Your task to perform on an android device: Search for Italian restaurants on Maps Image 0: 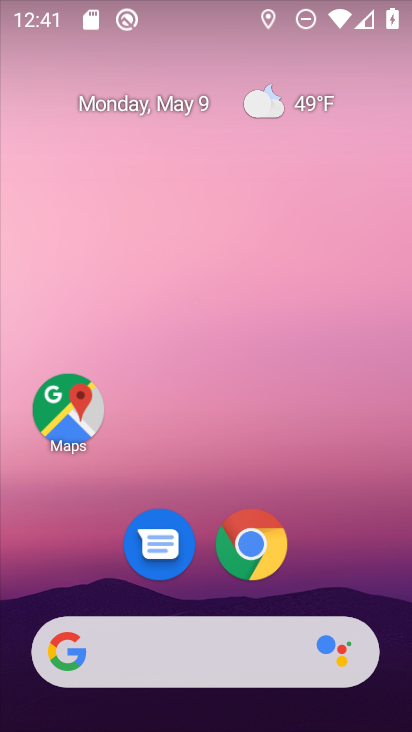
Step 0: drag from (358, 533) to (408, 86)
Your task to perform on an android device: Search for Italian restaurants on Maps Image 1: 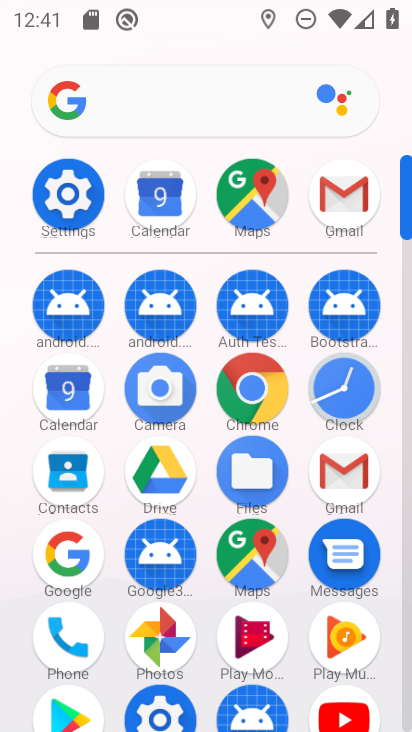
Step 1: click (265, 208)
Your task to perform on an android device: Search for Italian restaurants on Maps Image 2: 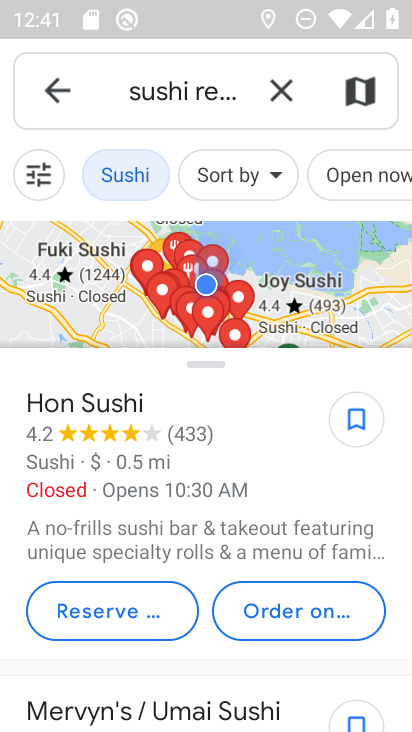
Step 2: click (281, 88)
Your task to perform on an android device: Search for Italian restaurants on Maps Image 3: 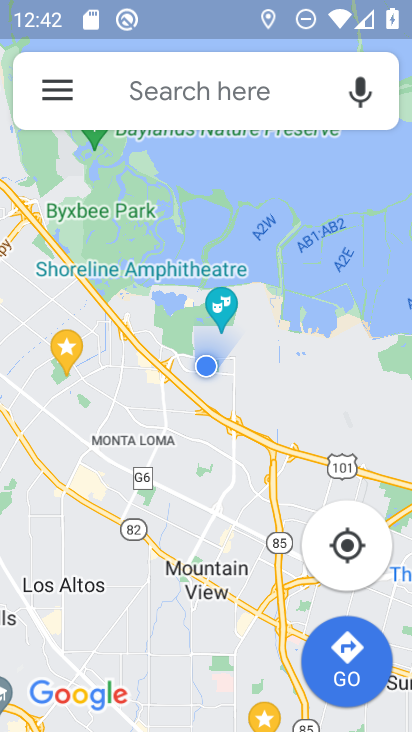
Step 3: type "italian returents"
Your task to perform on an android device: Search for Italian restaurants on Maps Image 4: 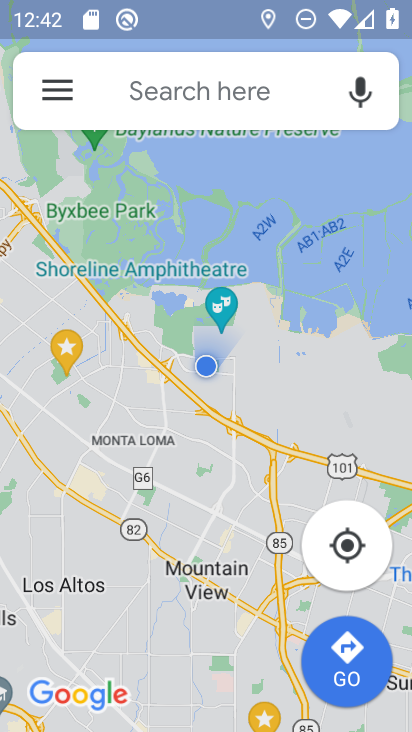
Step 4: drag from (289, 331) to (297, 592)
Your task to perform on an android device: Search for Italian restaurants on Maps Image 5: 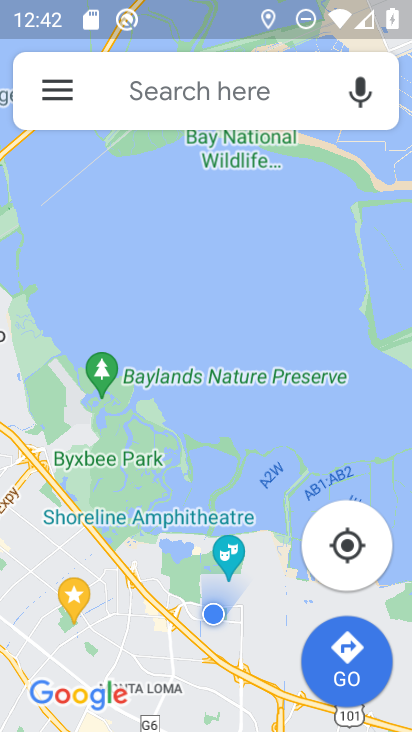
Step 5: click (237, 103)
Your task to perform on an android device: Search for Italian restaurants on Maps Image 6: 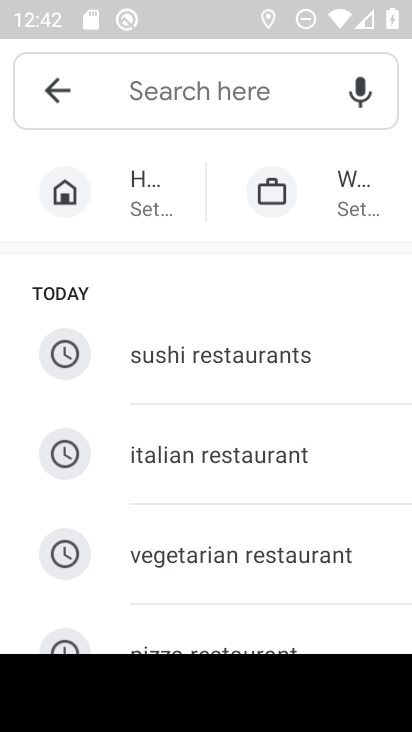
Step 6: click (192, 468)
Your task to perform on an android device: Search for Italian restaurants on Maps Image 7: 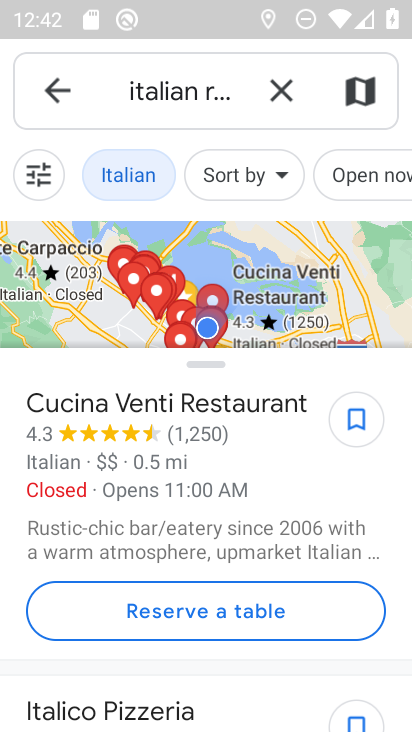
Step 7: task complete